Your task to perform on an android device: change timer sound Image 0: 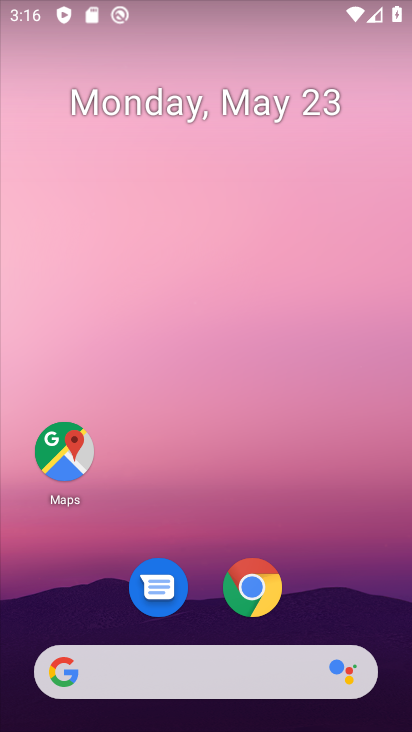
Step 0: drag from (193, 674) to (303, 104)
Your task to perform on an android device: change timer sound Image 1: 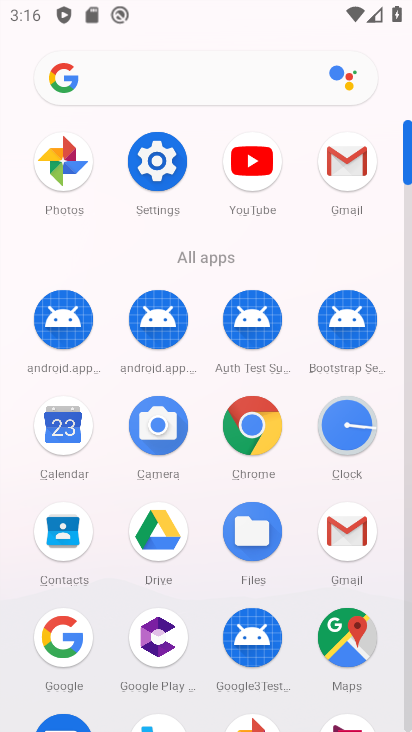
Step 1: click (349, 432)
Your task to perform on an android device: change timer sound Image 2: 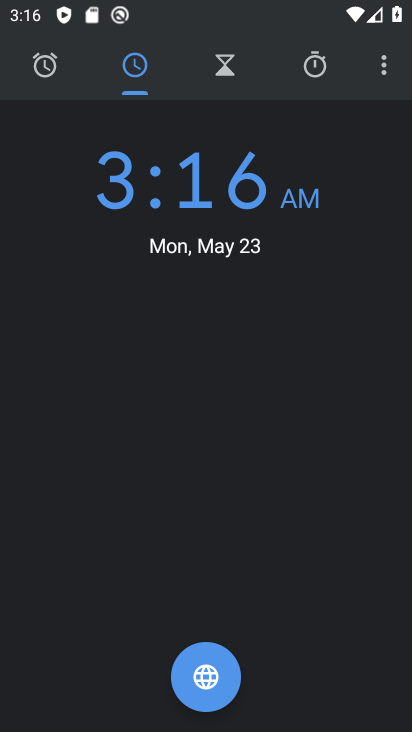
Step 2: click (382, 71)
Your task to perform on an android device: change timer sound Image 3: 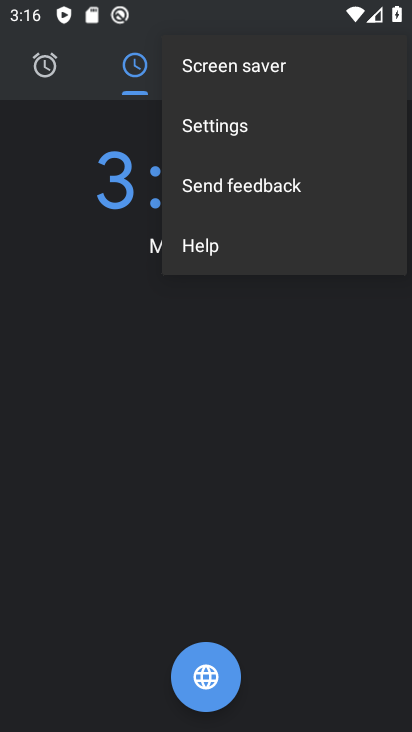
Step 3: click (234, 131)
Your task to perform on an android device: change timer sound Image 4: 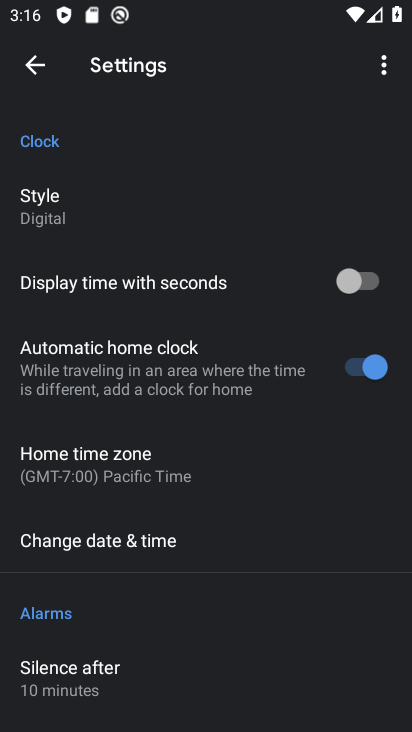
Step 4: drag from (160, 639) to (287, 127)
Your task to perform on an android device: change timer sound Image 5: 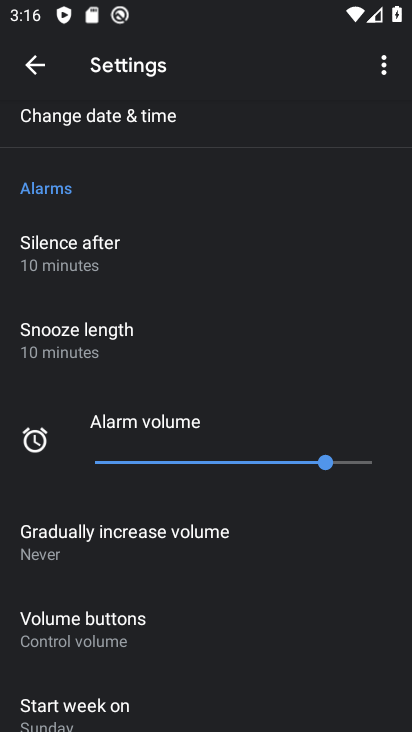
Step 5: drag from (154, 668) to (285, 153)
Your task to perform on an android device: change timer sound Image 6: 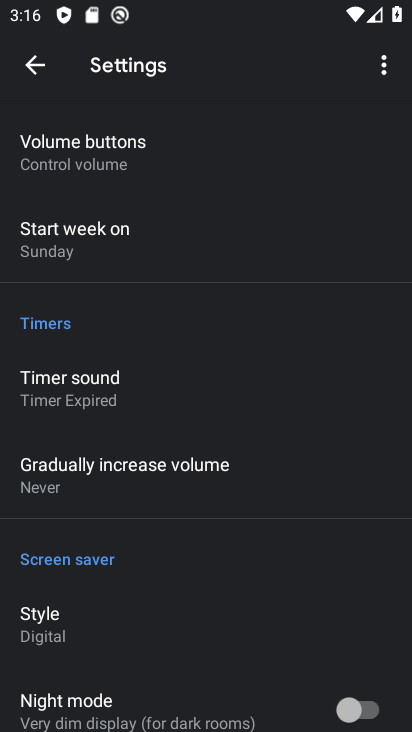
Step 6: click (96, 392)
Your task to perform on an android device: change timer sound Image 7: 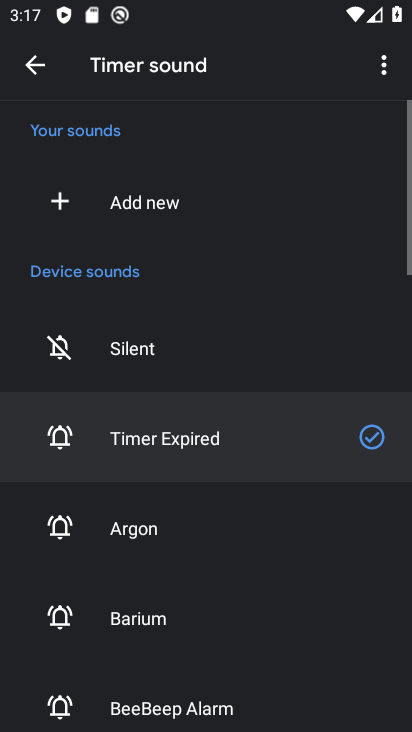
Step 7: click (148, 534)
Your task to perform on an android device: change timer sound Image 8: 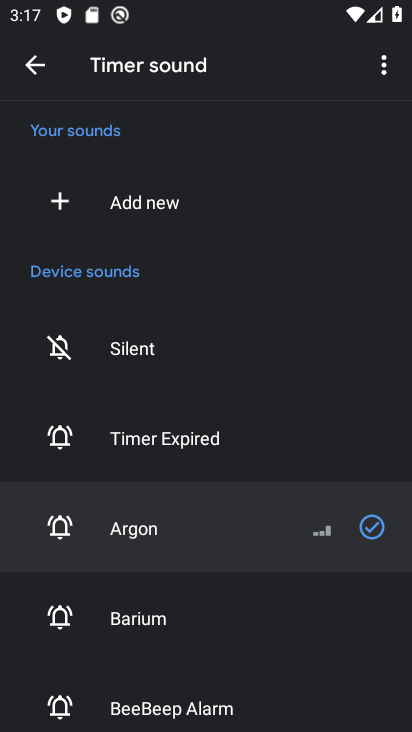
Step 8: task complete